Your task to perform on an android device: clear history in the chrome app Image 0: 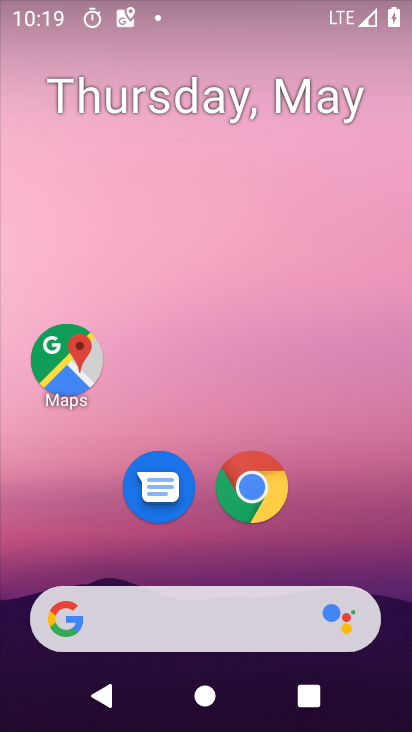
Step 0: drag from (220, 591) to (235, 128)
Your task to perform on an android device: clear history in the chrome app Image 1: 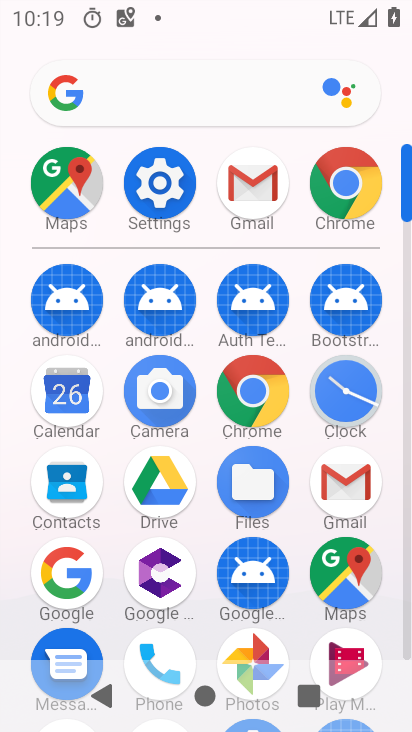
Step 1: click (266, 410)
Your task to perform on an android device: clear history in the chrome app Image 2: 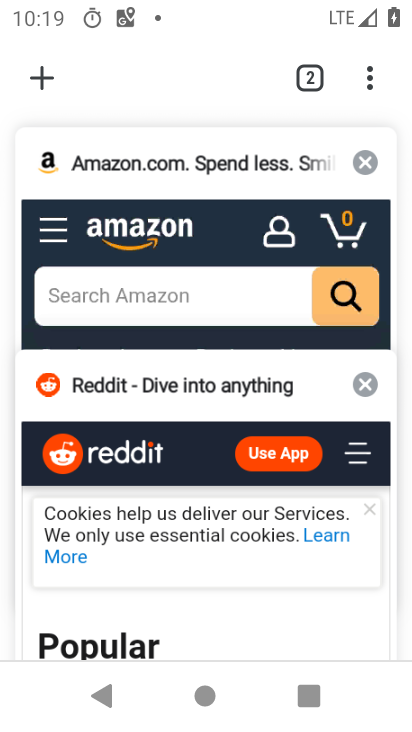
Step 2: click (375, 88)
Your task to perform on an android device: clear history in the chrome app Image 3: 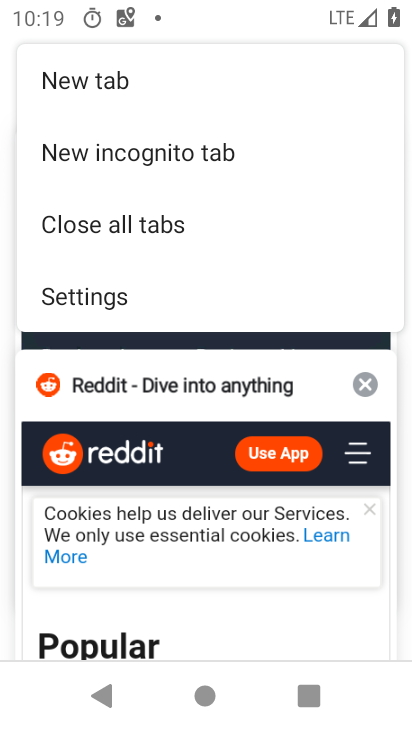
Step 3: drag from (125, 226) to (157, 0)
Your task to perform on an android device: clear history in the chrome app Image 4: 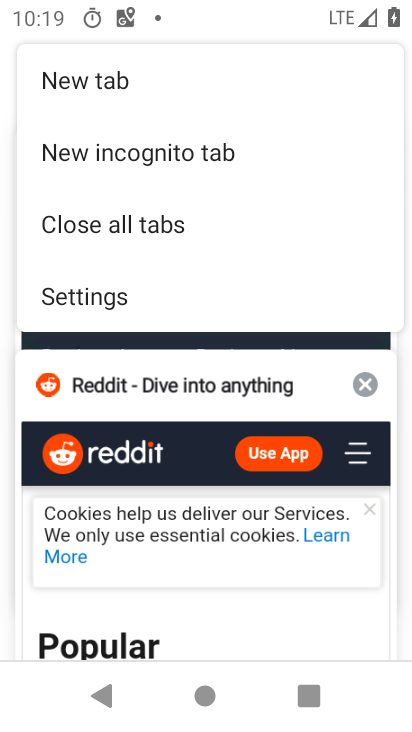
Step 4: click (230, 455)
Your task to perform on an android device: clear history in the chrome app Image 5: 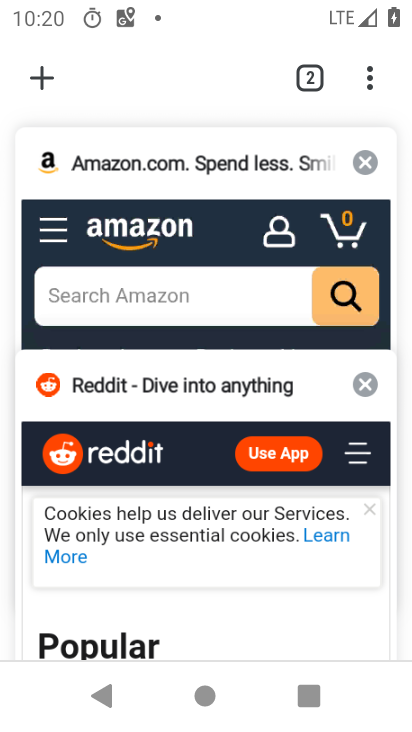
Step 5: click (242, 463)
Your task to perform on an android device: clear history in the chrome app Image 6: 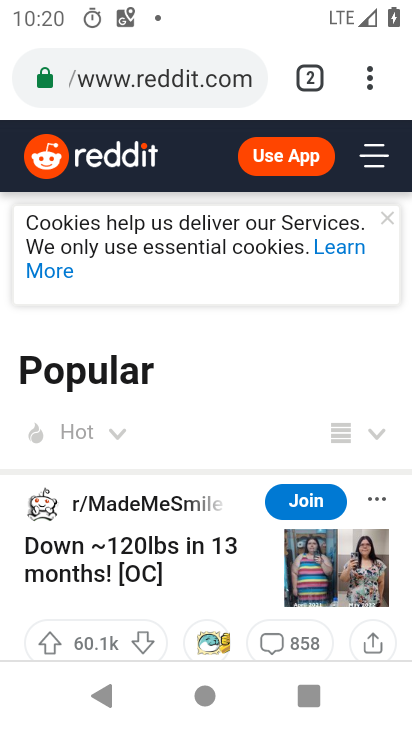
Step 6: click (378, 82)
Your task to perform on an android device: clear history in the chrome app Image 7: 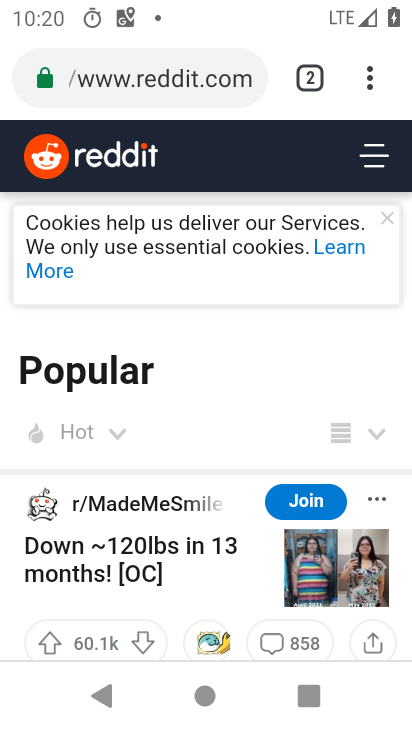
Step 7: click (363, 72)
Your task to perform on an android device: clear history in the chrome app Image 8: 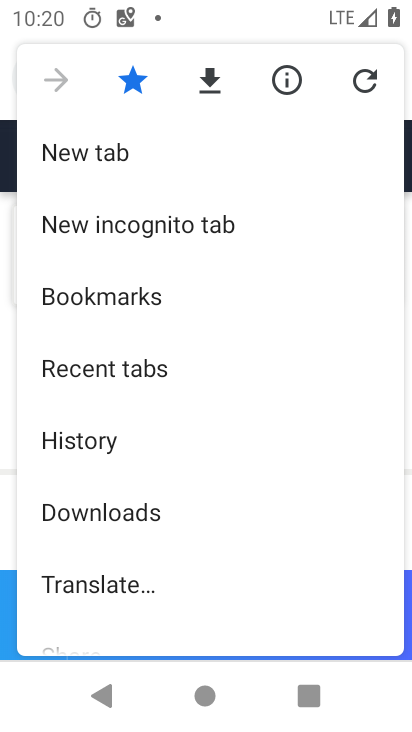
Step 8: click (121, 450)
Your task to perform on an android device: clear history in the chrome app Image 9: 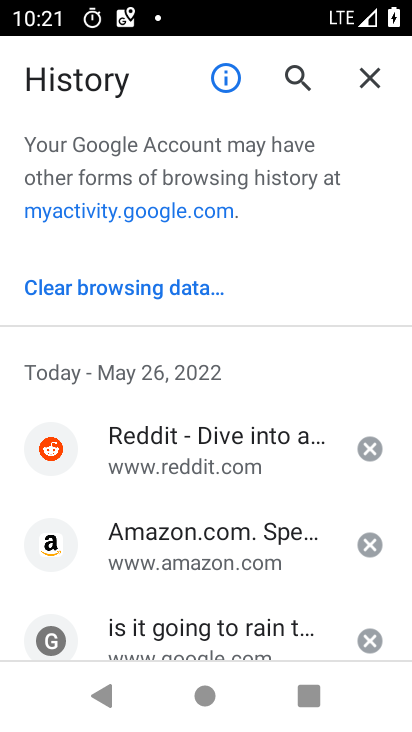
Step 9: click (151, 281)
Your task to perform on an android device: clear history in the chrome app Image 10: 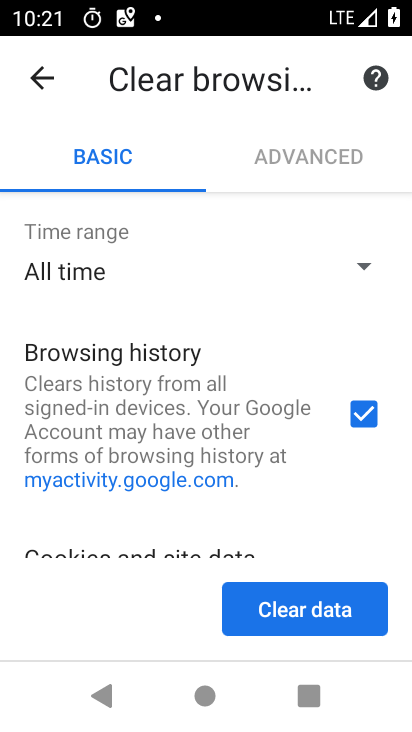
Step 10: click (312, 618)
Your task to perform on an android device: clear history in the chrome app Image 11: 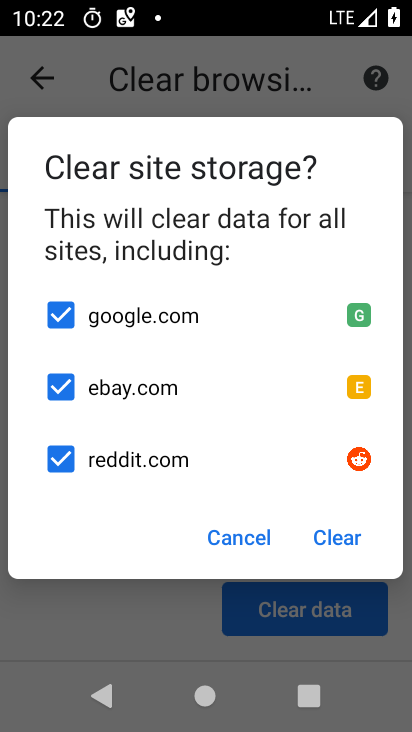
Step 11: click (344, 544)
Your task to perform on an android device: clear history in the chrome app Image 12: 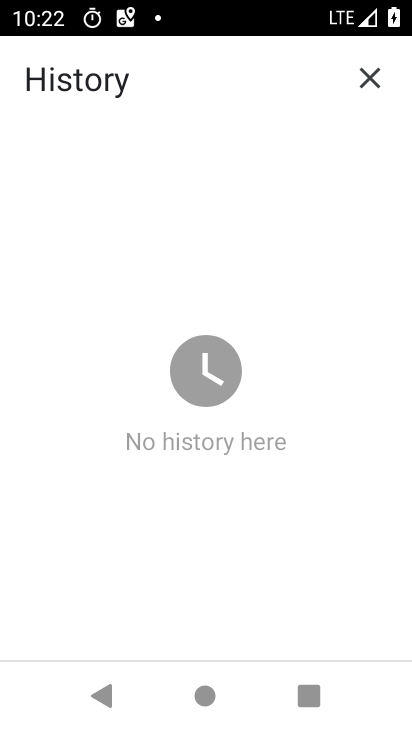
Step 12: task complete